Your task to perform on an android device: Is it going to rain tomorrow? Image 0: 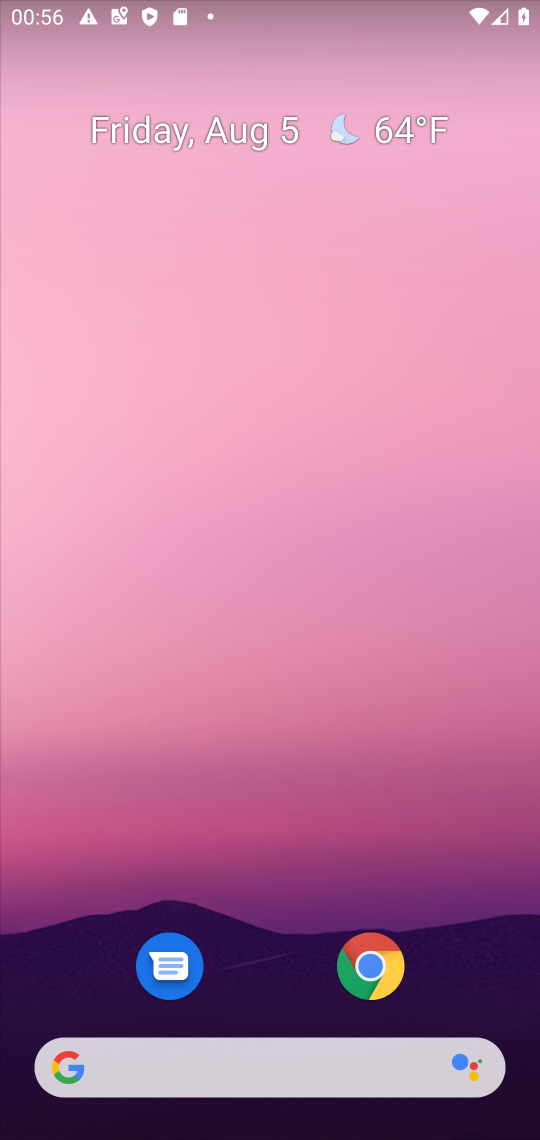
Step 0: click (387, 133)
Your task to perform on an android device: Is it going to rain tomorrow? Image 1: 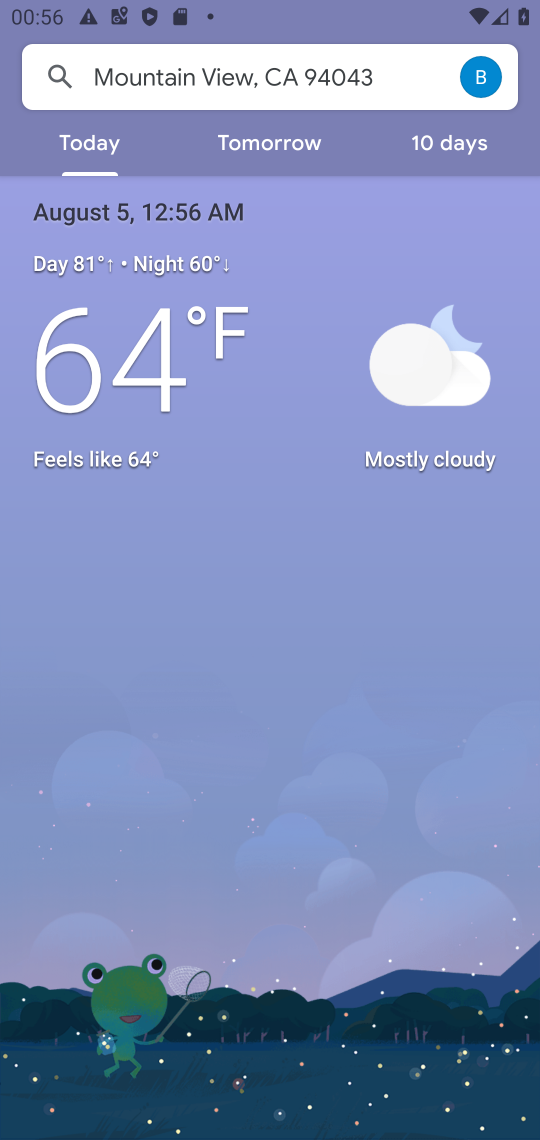
Step 1: task complete